Your task to perform on an android device: Open the web browser Image 0: 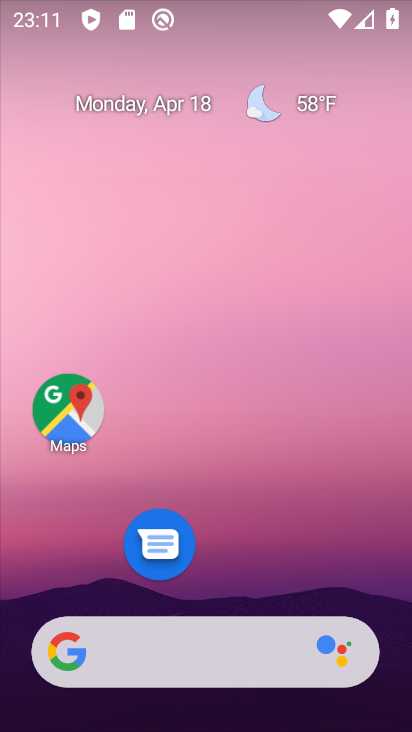
Step 0: drag from (260, 580) to (283, 186)
Your task to perform on an android device: Open the web browser Image 1: 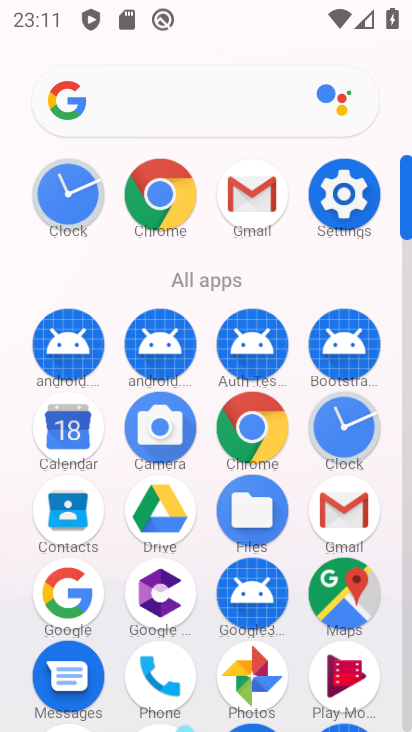
Step 1: click (157, 193)
Your task to perform on an android device: Open the web browser Image 2: 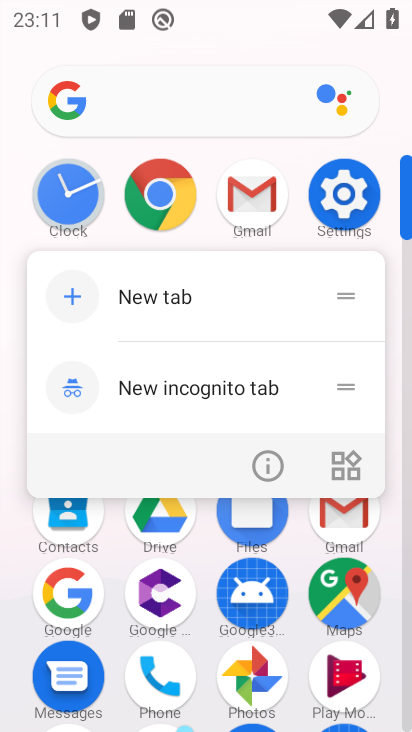
Step 2: click (157, 193)
Your task to perform on an android device: Open the web browser Image 3: 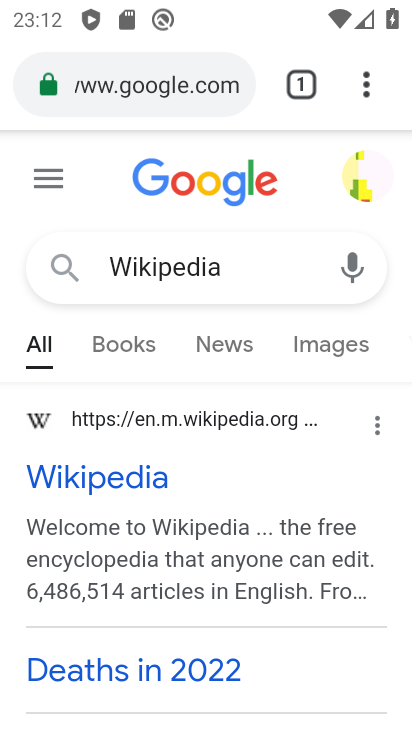
Step 3: task complete